Your task to perform on an android device: turn on the 12-hour format for clock Image 0: 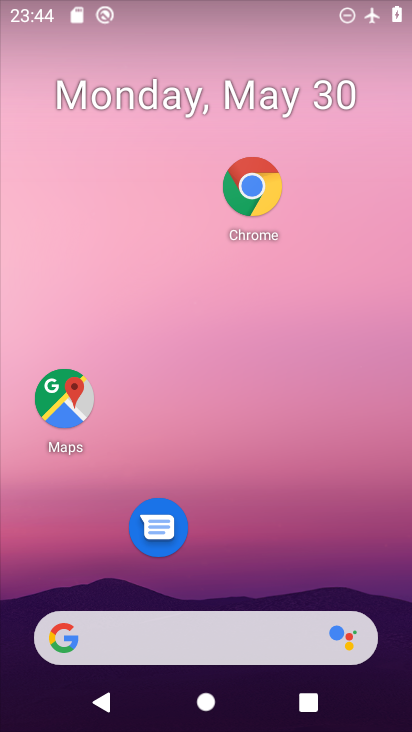
Step 0: drag from (317, 583) to (326, 221)
Your task to perform on an android device: turn on the 12-hour format for clock Image 1: 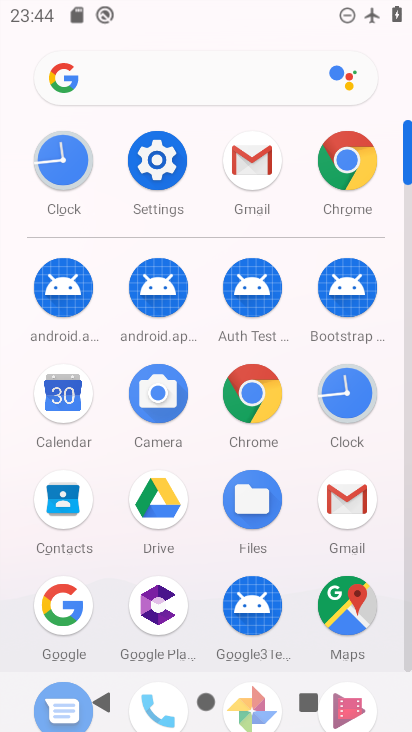
Step 1: click (348, 385)
Your task to perform on an android device: turn on the 12-hour format for clock Image 2: 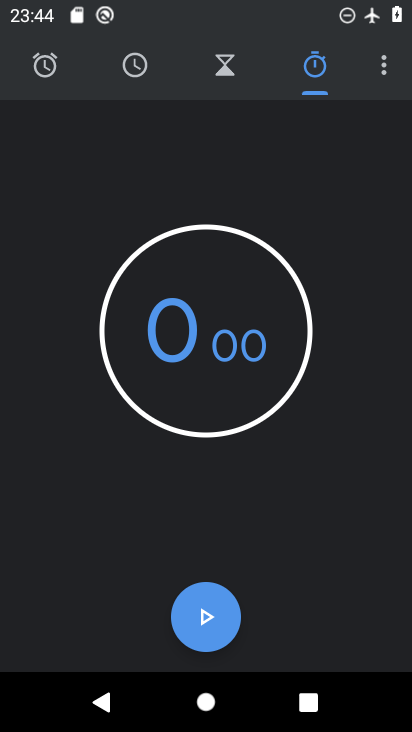
Step 2: click (375, 64)
Your task to perform on an android device: turn on the 12-hour format for clock Image 3: 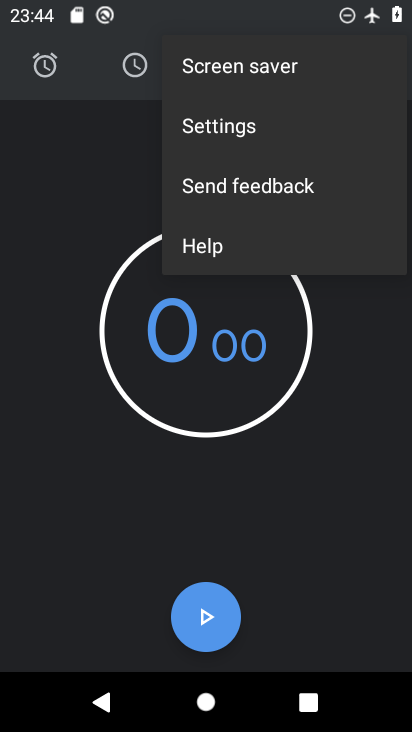
Step 3: click (213, 120)
Your task to perform on an android device: turn on the 12-hour format for clock Image 4: 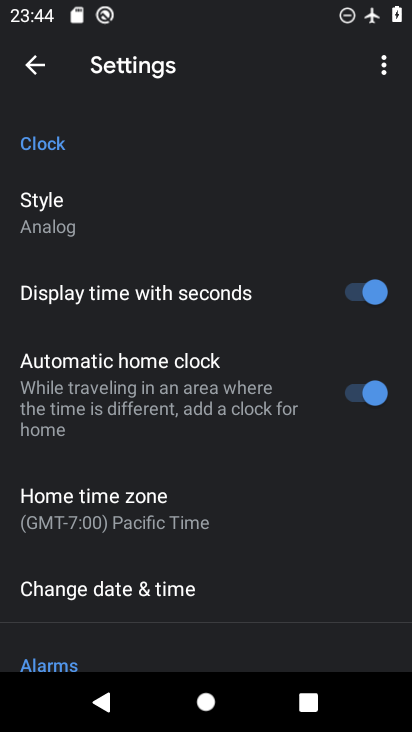
Step 4: drag from (210, 498) to (227, 289)
Your task to perform on an android device: turn on the 12-hour format for clock Image 5: 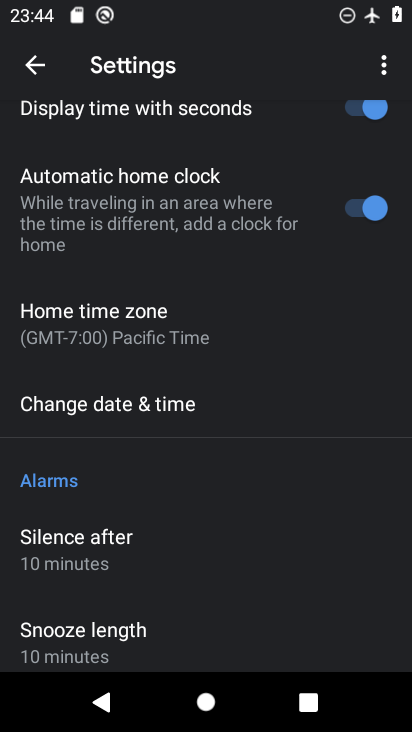
Step 5: drag from (268, 169) to (242, 469)
Your task to perform on an android device: turn on the 12-hour format for clock Image 6: 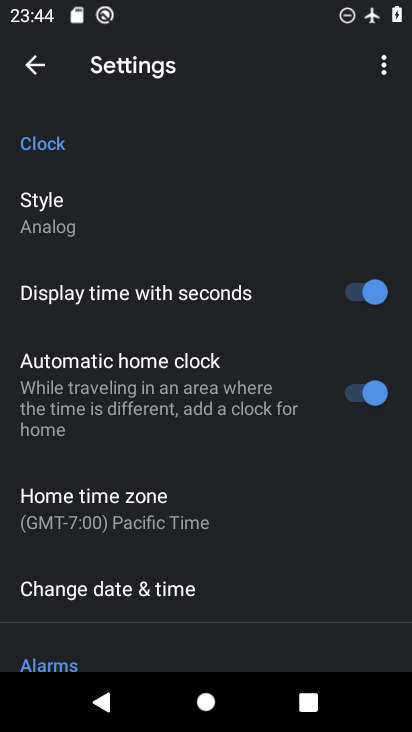
Step 6: click (253, 607)
Your task to perform on an android device: turn on the 12-hour format for clock Image 7: 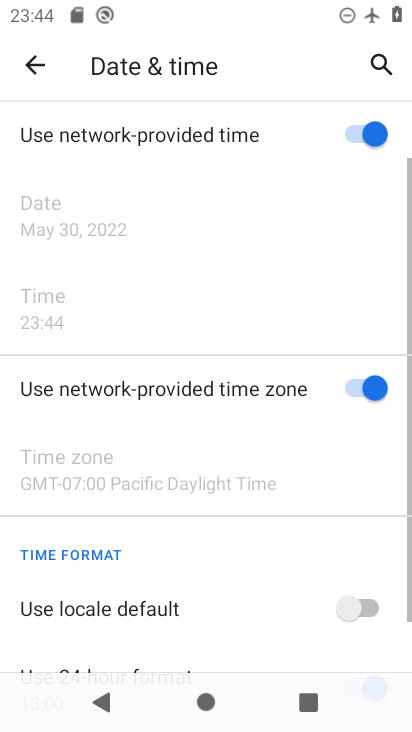
Step 7: drag from (337, 567) to (317, 212)
Your task to perform on an android device: turn on the 12-hour format for clock Image 8: 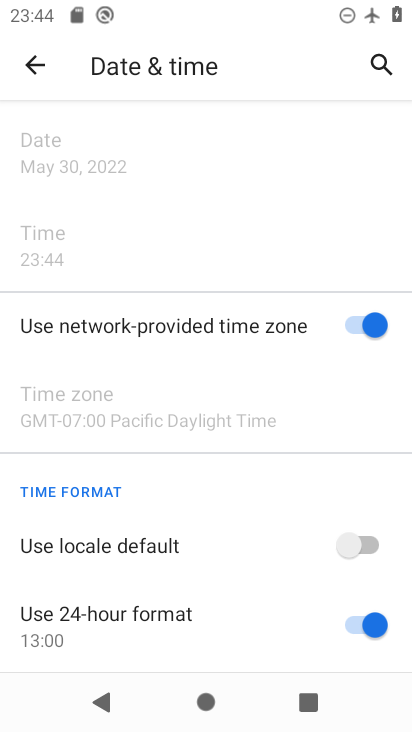
Step 8: click (353, 539)
Your task to perform on an android device: turn on the 12-hour format for clock Image 9: 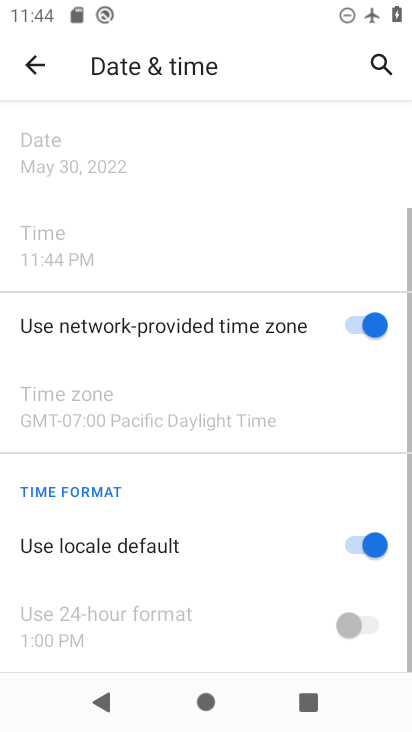
Step 9: click (347, 621)
Your task to perform on an android device: turn on the 12-hour format for clock Image 10: 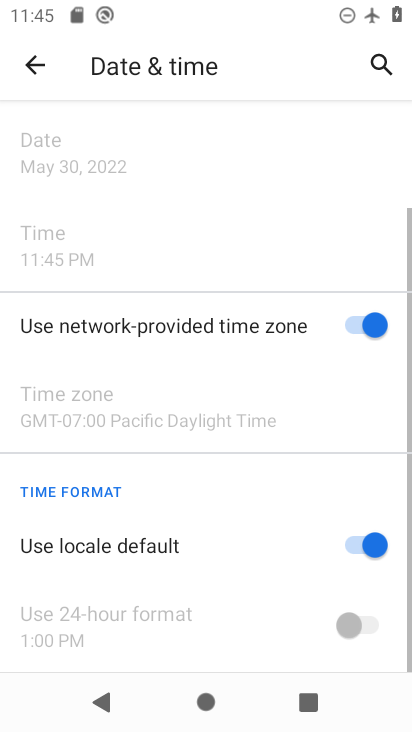
Step 10: click (361, 621)
Your task to perform on an android device: turn on the 12-hour format for clock Image 11: 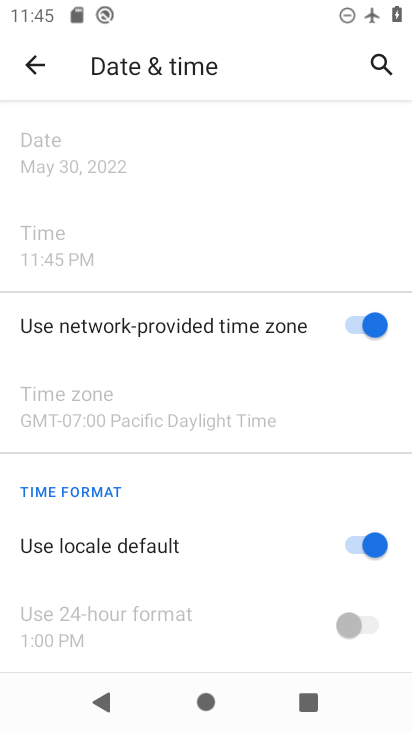
Step 11: click (381, 617)
Your task to perform on an android device: turn on the 12-hour format for clock Image 12: 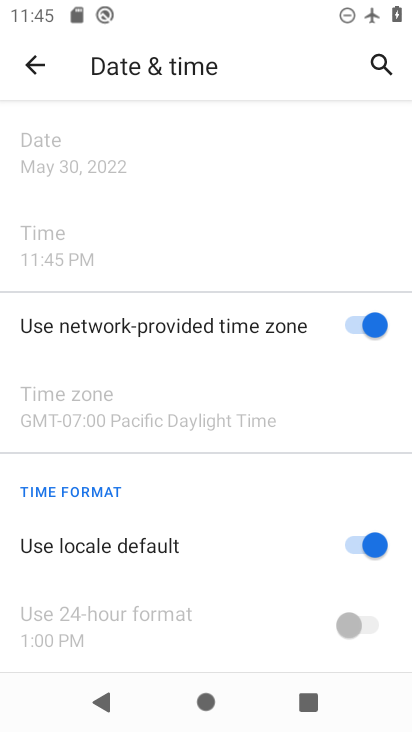
Step 12: click (362, 622)
Your task to perform on an android device: turn on the 12-hour format for clock Image 13: 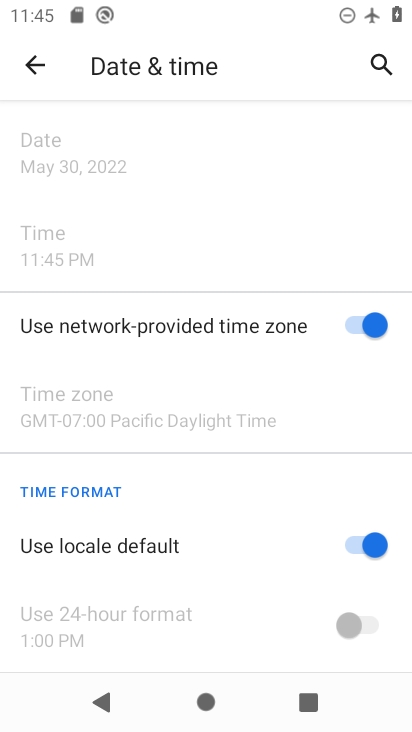
Step 13: click (357, 536)
Your task to perform on an android device: turn on the 12-hour format for clock Image 14: 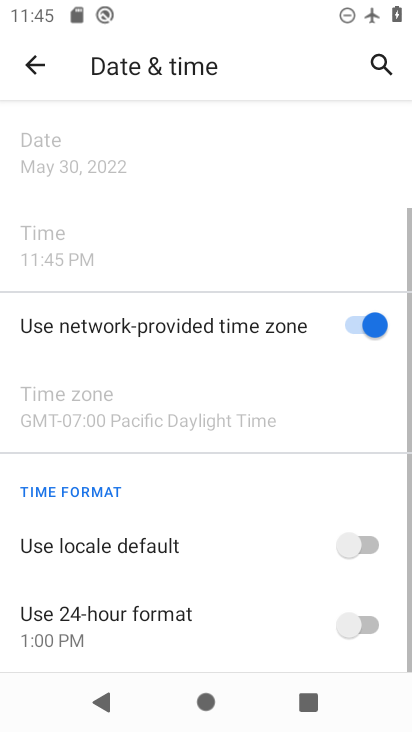
Step 14: click (367, 620)
Your task to perform on an android device: turn on the 12-hour format for clock Image 15: 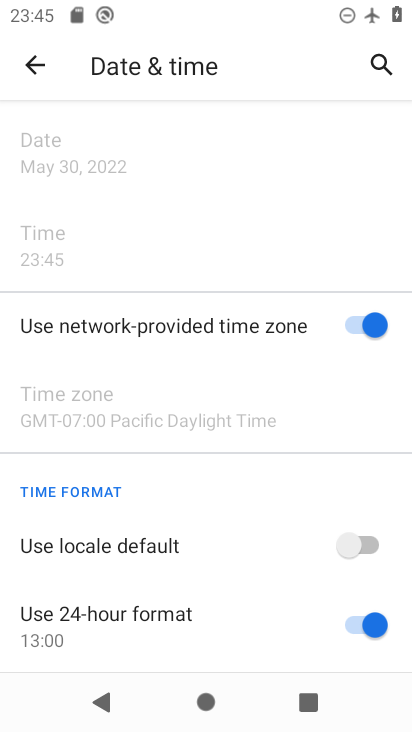
Step 15: task complete